Your task to perform on an android device: Go to accessibility settings Image 0: 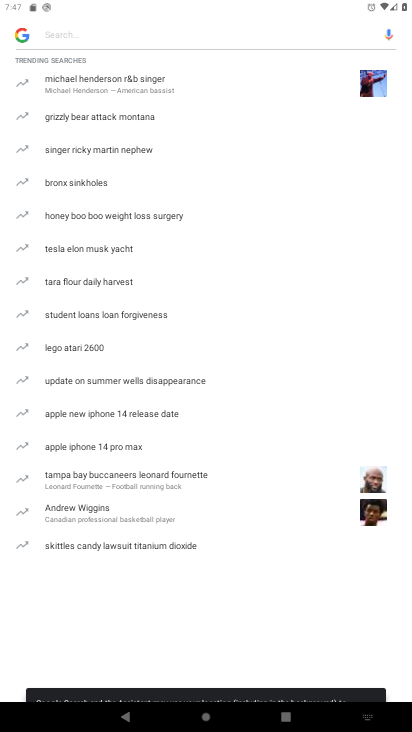
Step 0: press home button
Your task to perform on an android device: Go to accessibility settings Image 1: 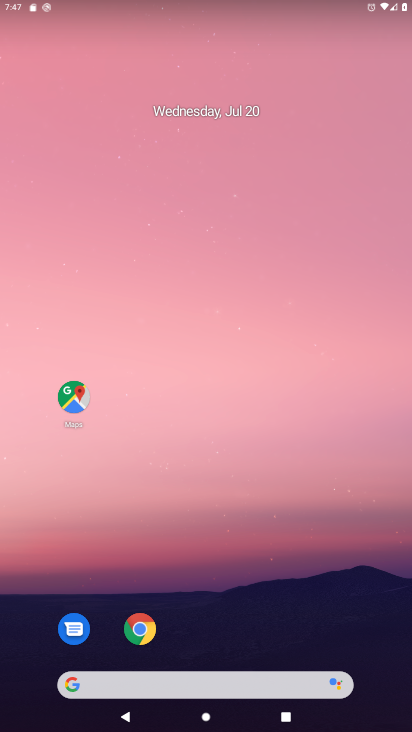
Step 1: drag from (240, 557) to (246, 161)
Your task to perform on an android device: Go to accessibility settings Image 2: 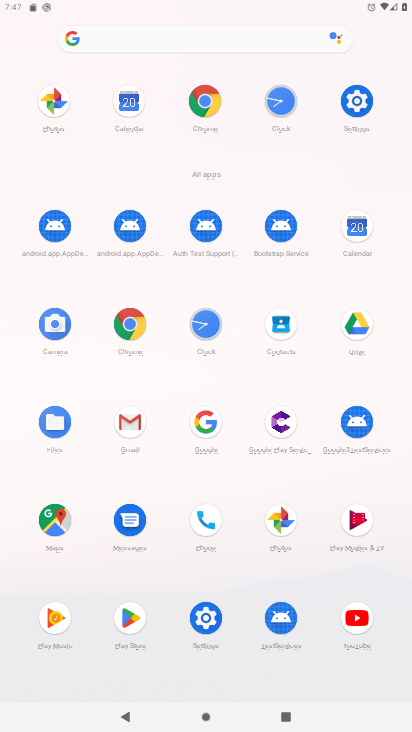
Step 2: click (198, 613)
Your task to perform on an android device: Go to accessibility settings Image 3: 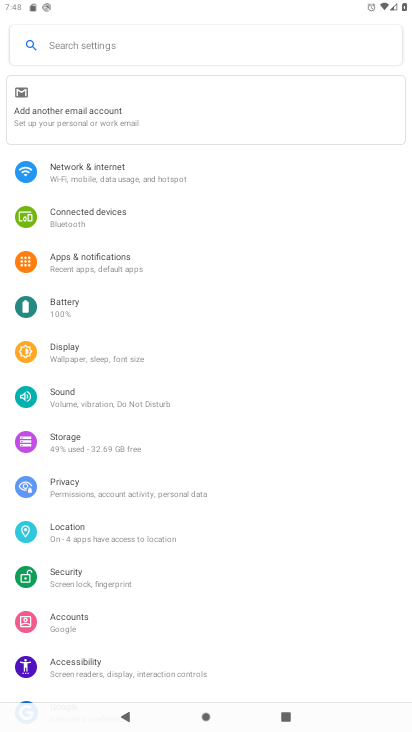
Step 3: click (89, 665)
Your task to perform on an android device: Go to accessibility settings Image 4: 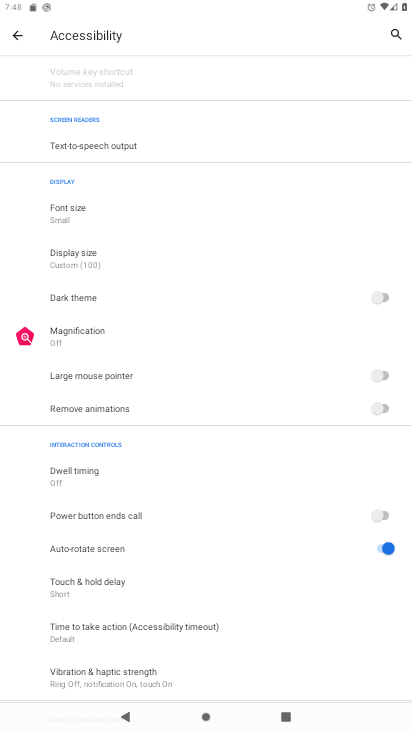
Step 4: task complete